Your task to perform on an android device: install app "The Home Depot" Image 0: 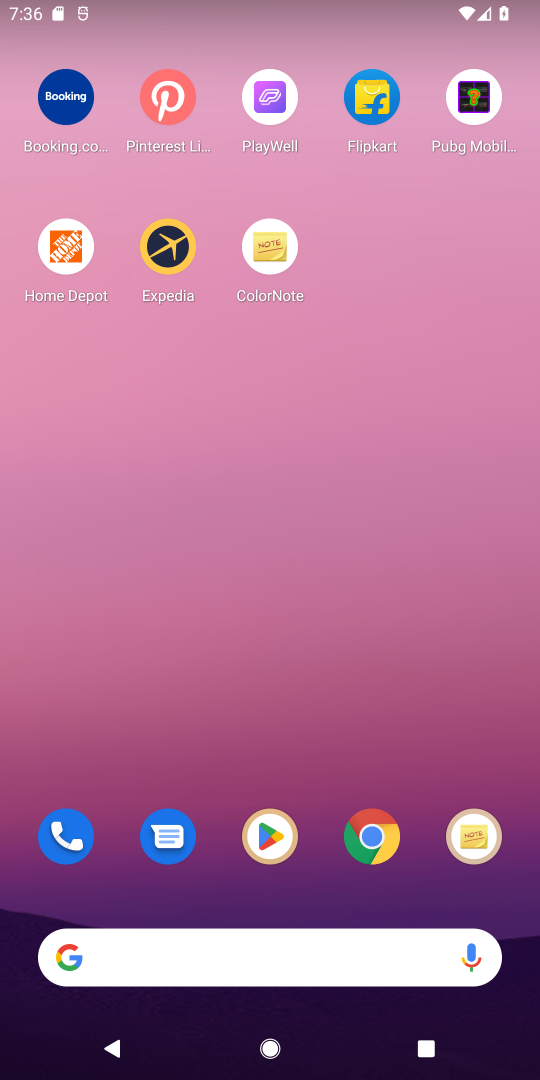
Step 0: press home button
Your task to perform on an android device: install app "The Home Depot" Image 1: 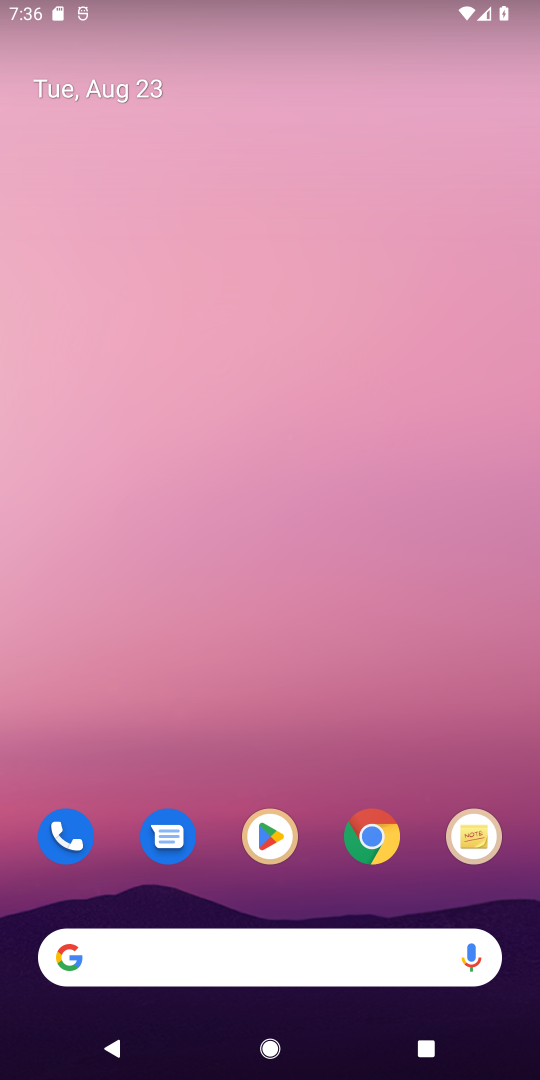
Step 1: click (274, 839)
Your task to perform on an android device: install app "The Home Depot" Image 2: 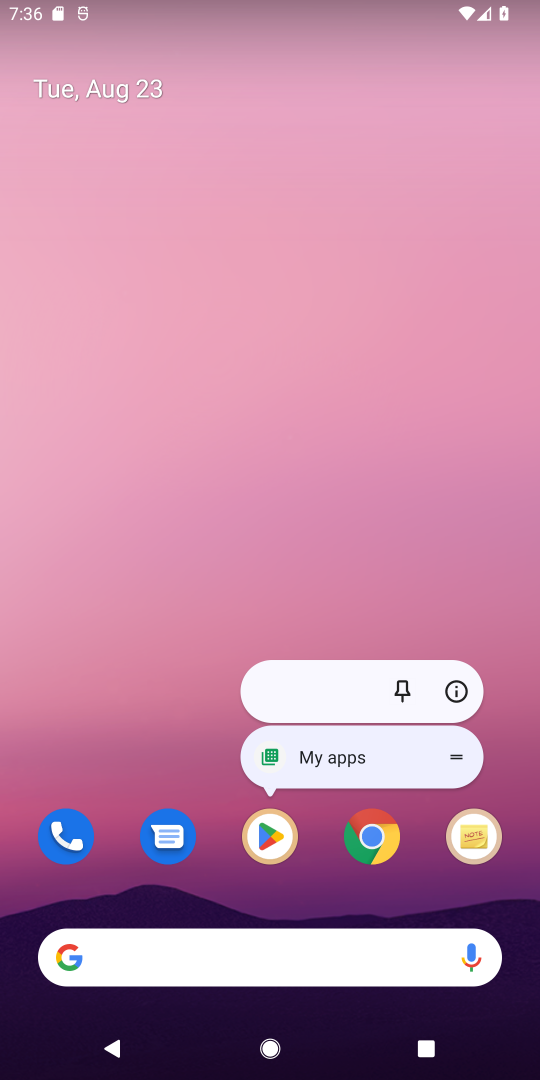
Step 2: click (266, 843)
Your task to perform on an android device: install app "The Home Depot" Image 3: 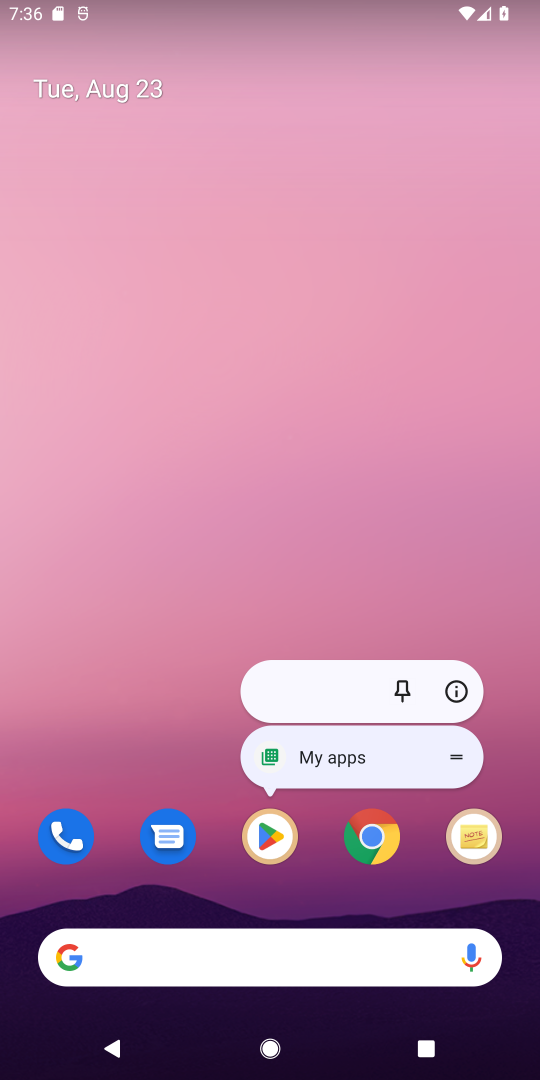
Step 3: click (266, 843)
Your task to perform on an android device: install app "The Home Depot" Image 4: 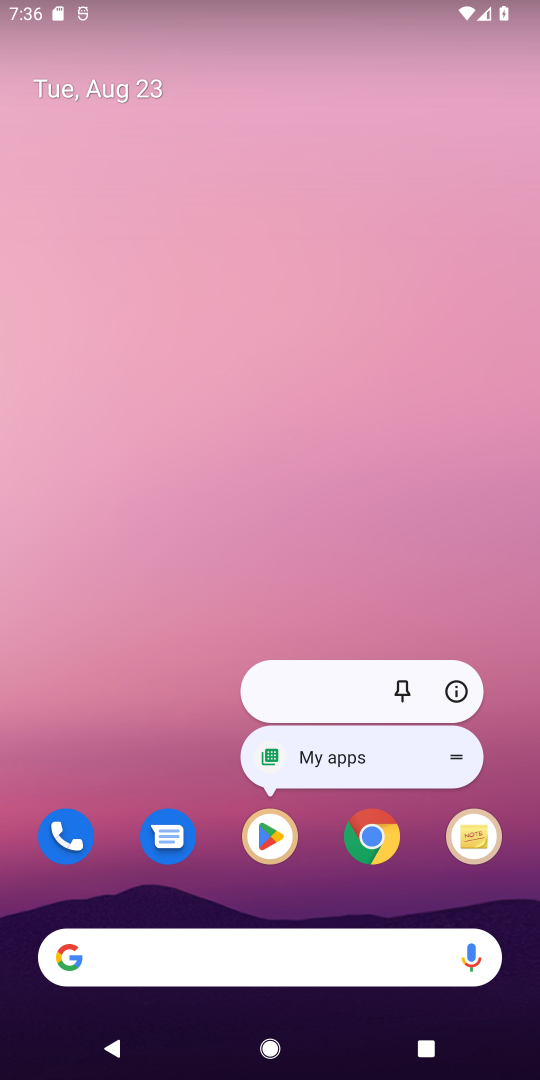
Step 4: click (266, 843)
Your task to perform on an android device: install app "The Home Depot" Image 5: 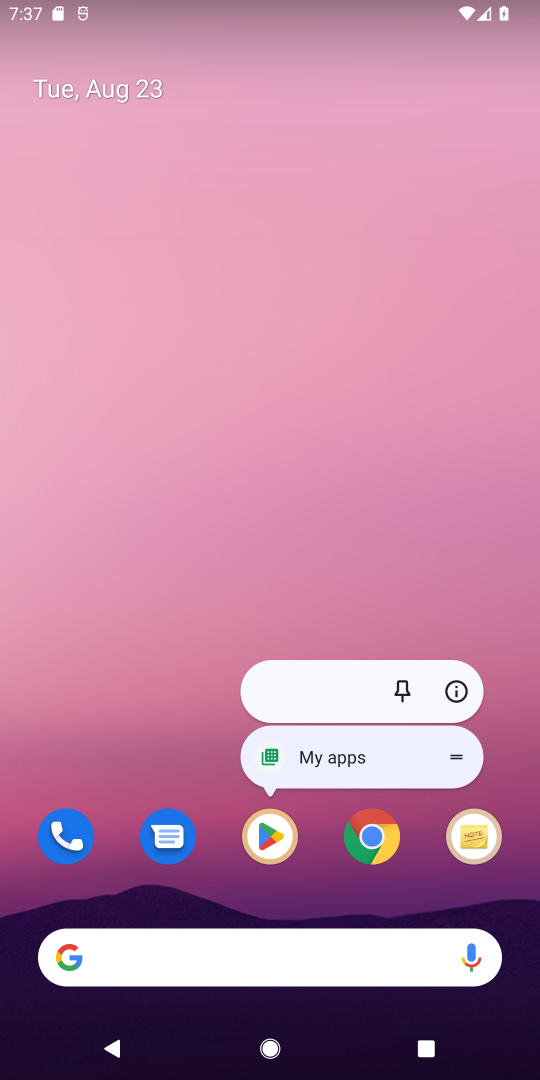
Step 5: click (267, 839)
Your task to perform on an android device: install app "The Home Depot" Image 6: 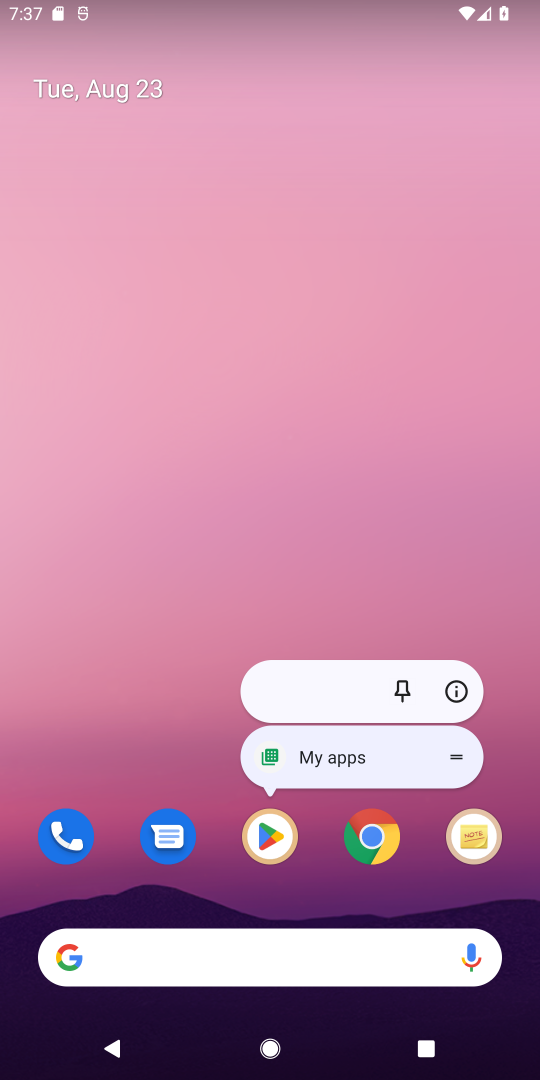
Step 6: click (267, 839)
Your task to perform on an android device: install app "The Home Depot" Image 7: 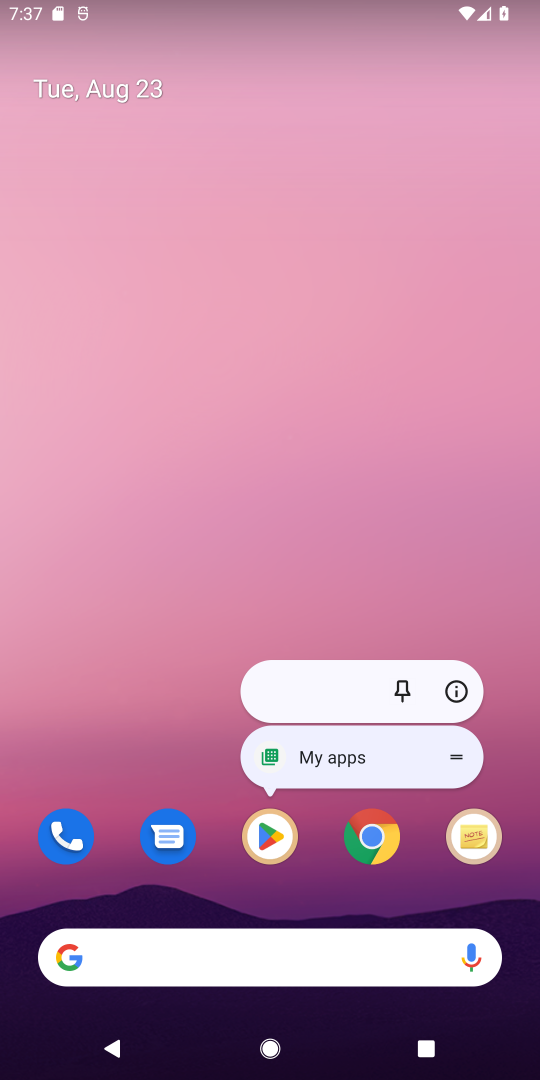
Step 7: click (264, 838)
Your task to perform on an android device: install app "The Home Depot" Image 8: 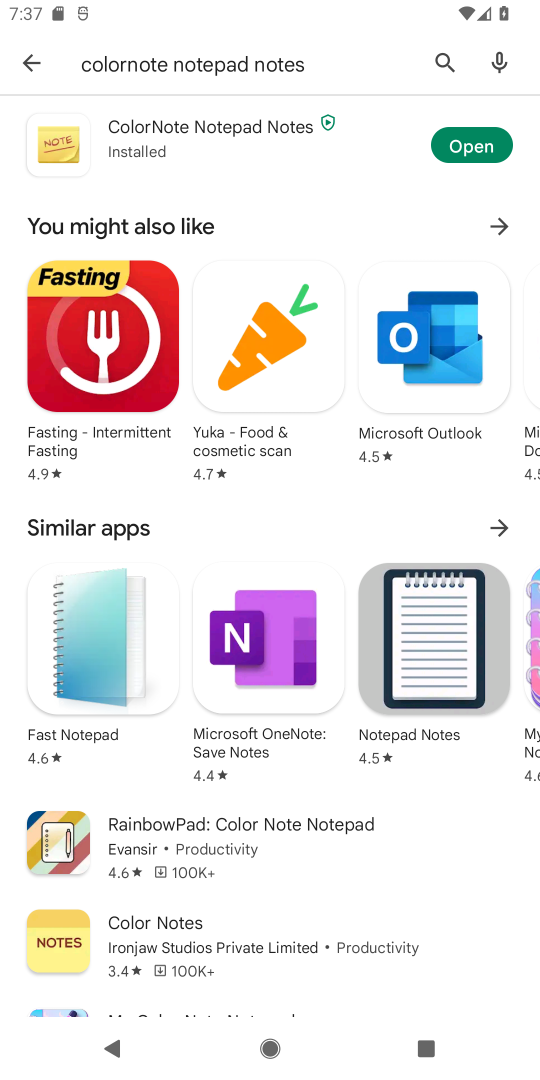
Step 8: click (448, 60)
Your task to perform on an android device: install app "The Home Depot" Image 9: 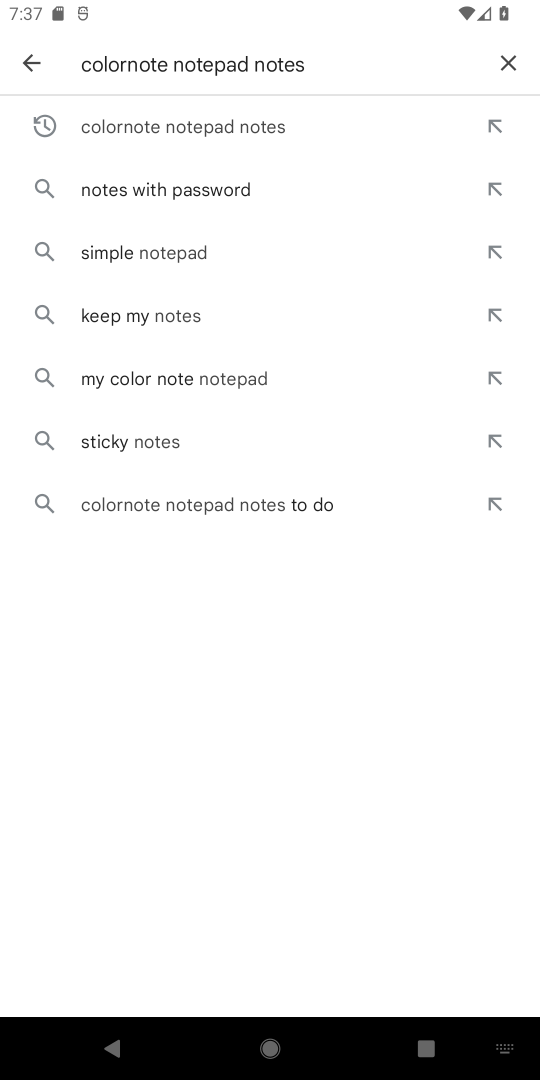
Step 9: click (496, 55)
Your task to perform on an android device: install app "The Home Depot" Image 10: 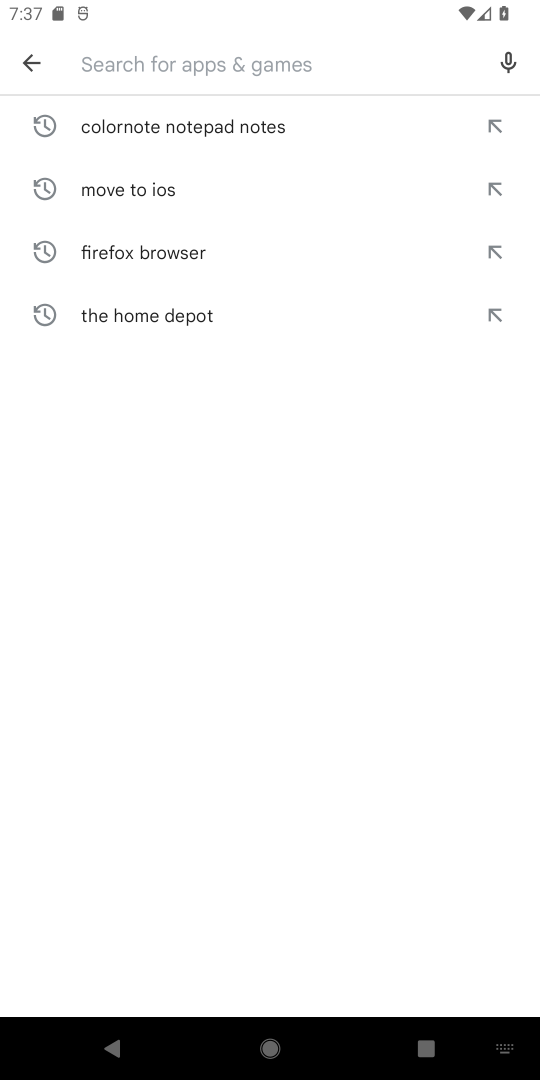
Step 10: type "The Home Depot"
Your task to perform on an android device: install app "The Home Depot" Image 11: 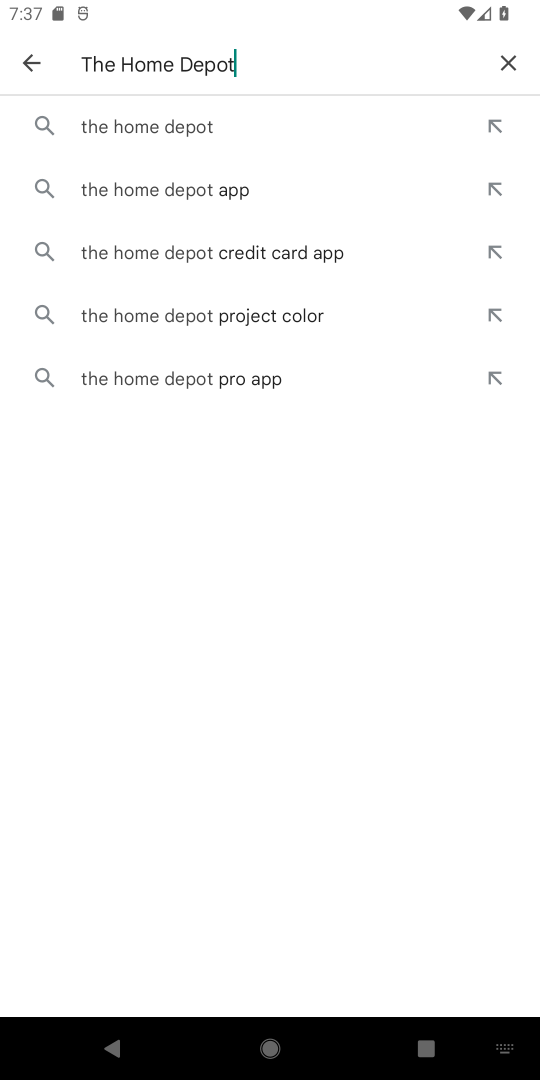
Step 11: click (158, 127)
Your task to perform on an android device: install app "The Home Depot" Image 12: 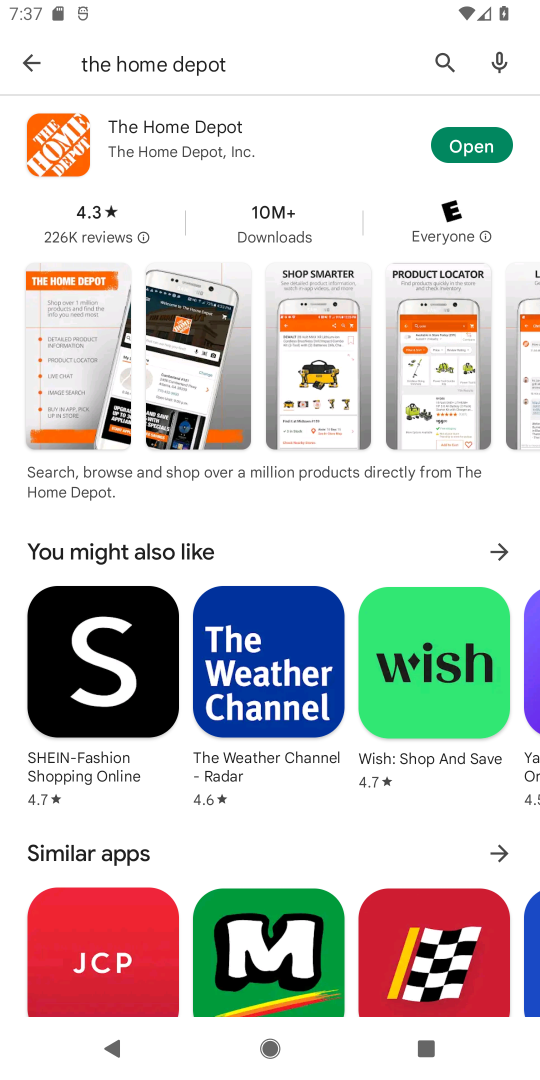
Step 12: task complete